Your task to perform on an android device: Check the settings for the Netflix app Image 0: 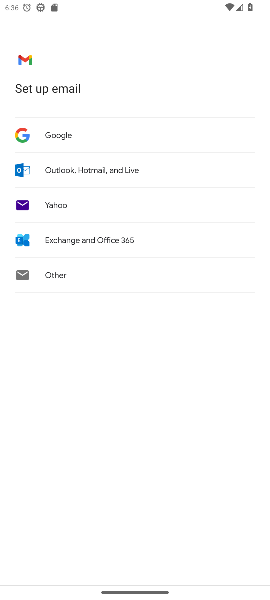
Step 0: press home button
Your task to perform on an android device: Check the settings for the Netflix app Image 1: 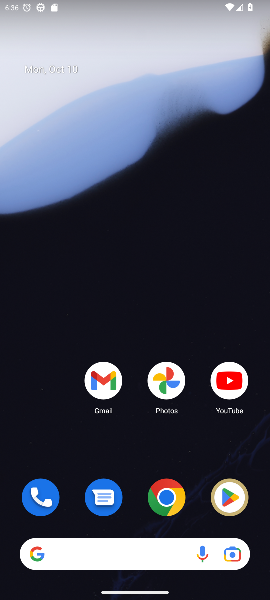
Step 1: drag from (134, 456) to (144, 95)
Your task to perform on an android device: Check the settings for the Netflix app Image 2: 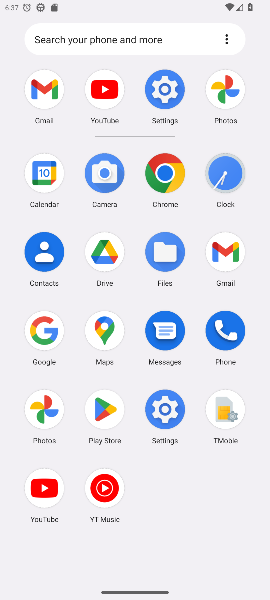
Step 2: click (44, 321)
Your task to perform on an android device: Check the settings for the Netflix app Image 3: 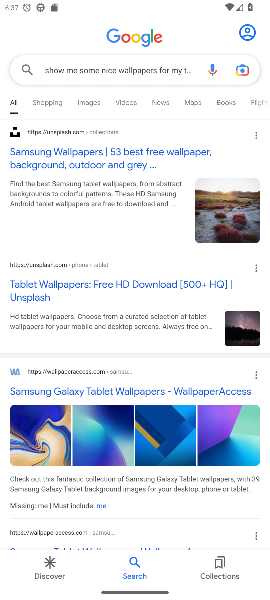
Step 3: click (178, 64)
Your task to perform on an android device: Check the settings for the Netflix app Image 4: 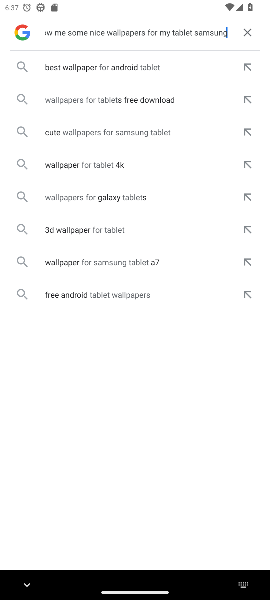
Step 4: click (248, 30)
Your task to perform on an android device: Check the settings for the Netflix app Image 5: 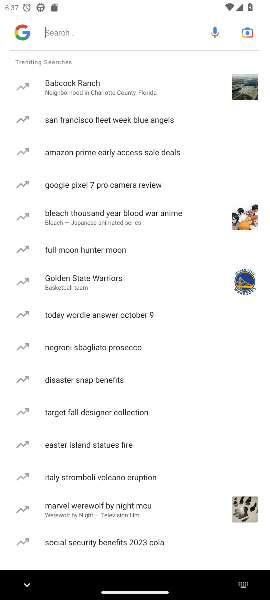
Step 5: click (96, 29)
Your task to perform on an android device: Check the settings for the Netflix app Image 6: 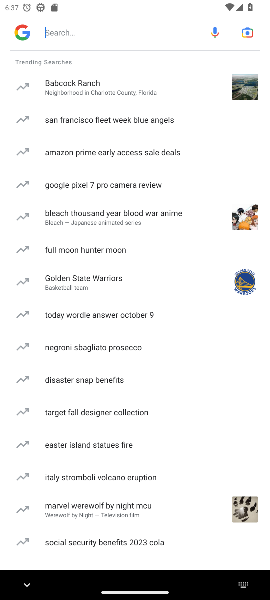
Step 6: type "Check the settings for the Netflix app "
Your task to perform on an android device: Check the settings for the Netflix app Image 7: 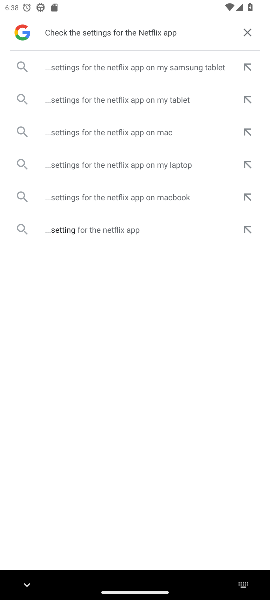
Step 7: click (249, 28)
Your task to perform on an android device: Check the settings for the Netflix app Image 8: 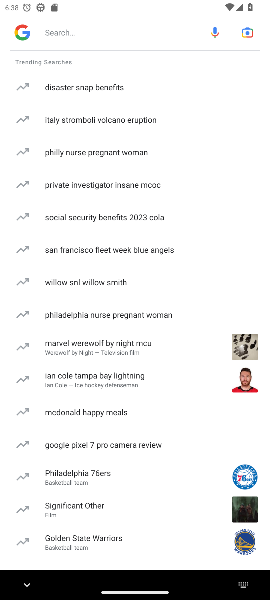
Step 8: click (132, 38)
Your task to perform on an android device: Check the settings for the Netflix app Image 9: 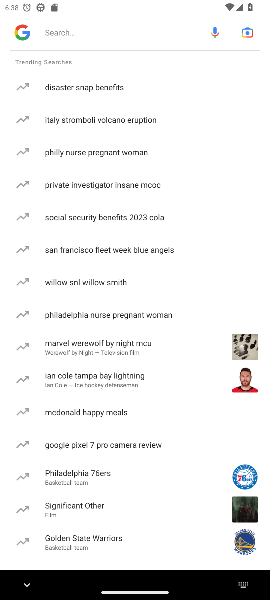
Step 9: click (114, 27)
Your task to perform on an android device: Check the settings for the Netflix app Image 10: 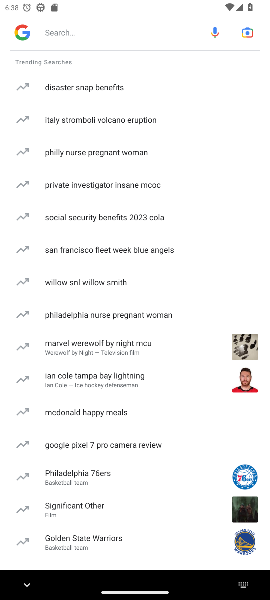
Step 10: type "Check the settings for the Netflix app "
Your task to perform on an android device: Check the settings for the Netflix app Image 11: 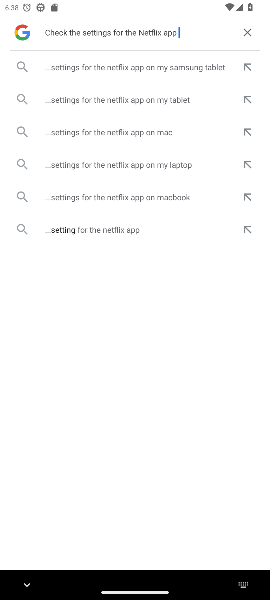
Step 11: click (183, 30)
Your task to perform on an android device: Check the settings for the Netflix app Image 12: 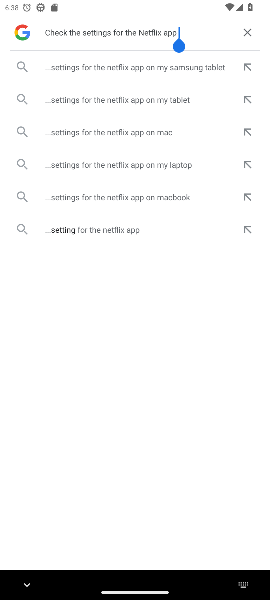
Step 12: press home button
Your task to perform on an android device: Check the settings for the Netflix app Image 13: 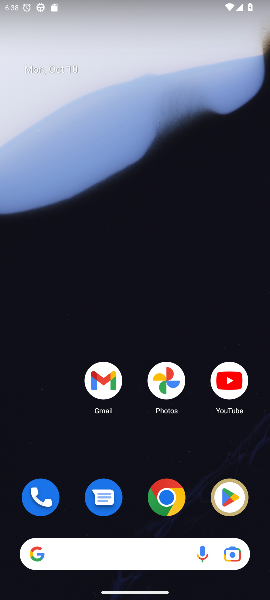
Step 13: click (223, 494)
Your task to perform on an android device: Check the settings for the Netflix app Image 14: 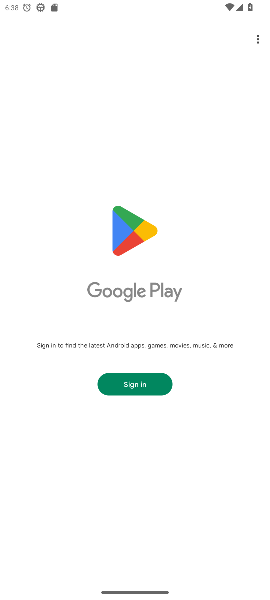
Step 14: click (158, 389)
Your task to perform on an android device: Check the settings for the Netflix app Image 15: 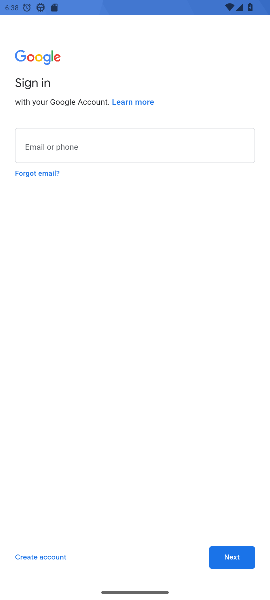
Step 15: press home button
Your task to perform on an android device: Check the settings for the Netflix app Image 16: 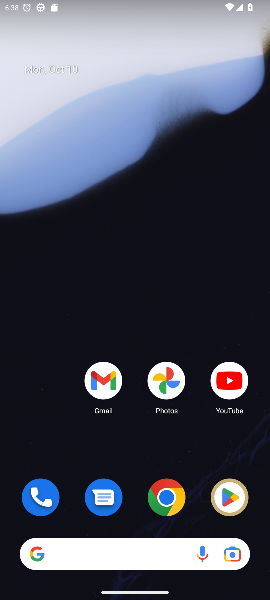
Step 16: drag from (146, 434) to (165, 92)
Your task to perform on an android device: Check the settings for the Netflix app Image 17: 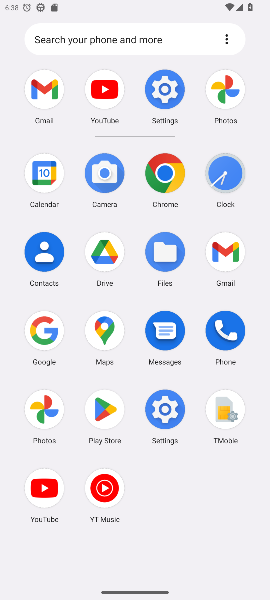
Step 17: click (32, 327)
Your task to perform on an android device: Check the settings for the Netflix app Image 18: 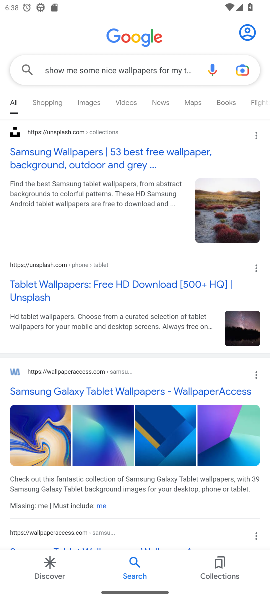
Step 18: click (185, 68)
Your task to perform on an android device: Check the settings for the Netflix app Image 19: 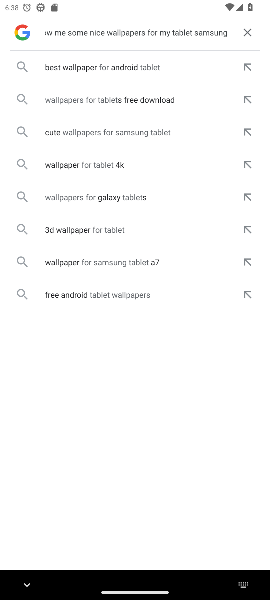
Step 19: click (252, 25)
Your task to perform on an android device: Check the settings for the Netflix app Image 20: 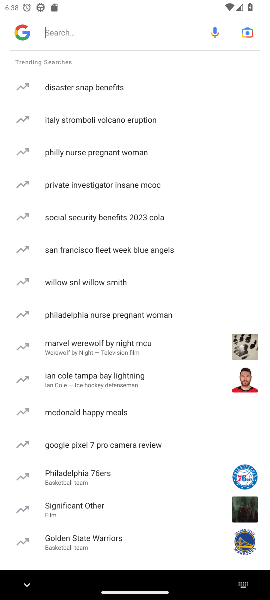
Step 20: click (132, 17)
Your task to perform on an android device: Check the settings for the Netflix app Image 21: 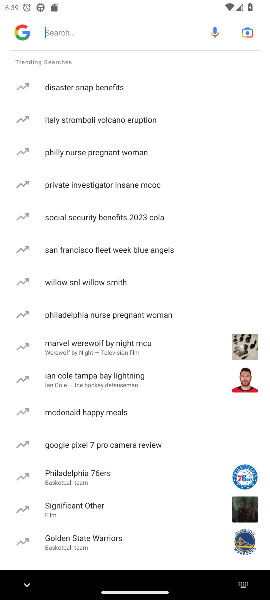
Step 21: type "settings for the Netflix app "
Your task to perform on an android device: Check the settings for the Netflix app Image 22: 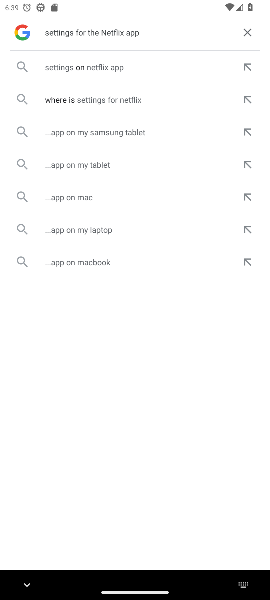
Step 22: click (52, 62)
Your task to perform on an android device: Check the settings for the Netflix app Image 23: 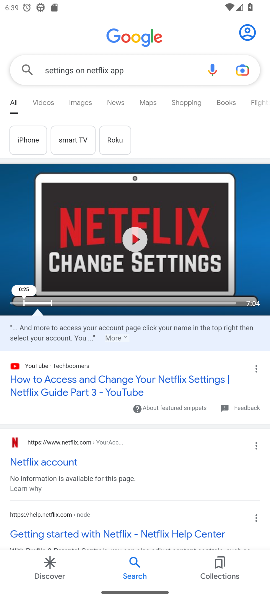
Step 23: click (66, 460)
Your task to perform on an android device: Check the settings for the Netflix app Image 24: 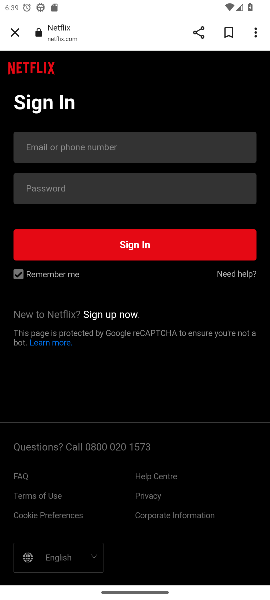
Step 24: task complete